Your task to perform on an android device: Open eBay Image 0: 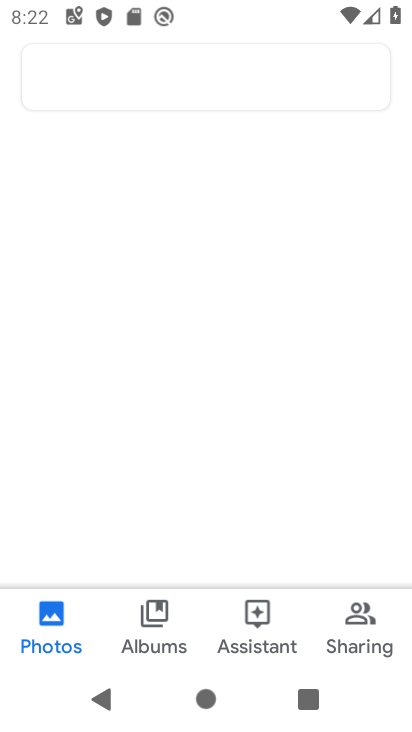
Step 0: press home button
Your task to perform on an android device: Open eBay Image 1: 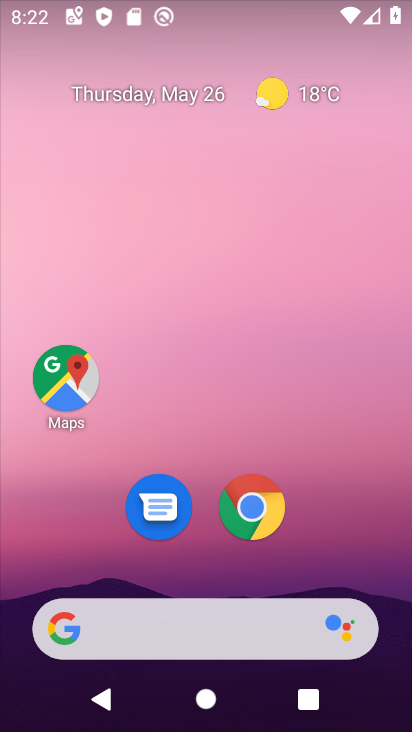
Step 1: drag from (265, 658) to (217, 84)
Your task to perform on an android device: Open eBay Image 2: 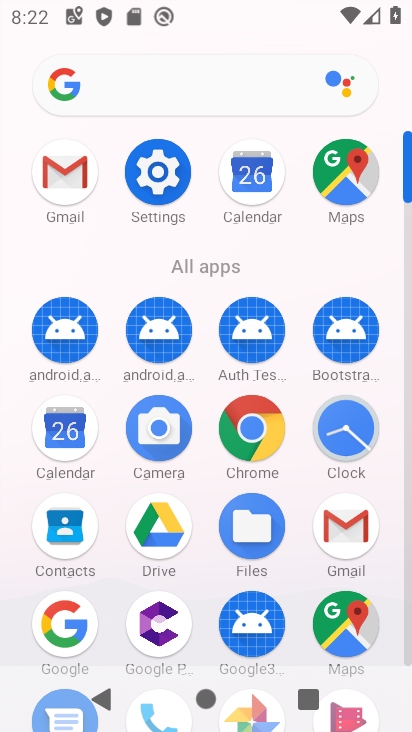
Step 2: click (265, 437)
Your task to perform on an android device: Open eBay Image 3: 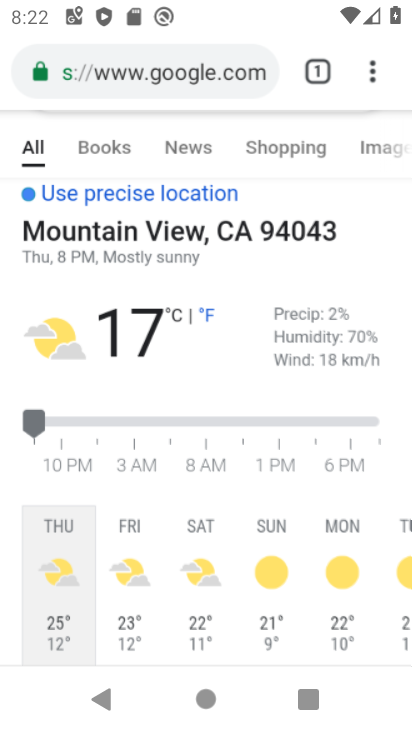
Step 3: click (216, 71)
Your task to perform on an android device: Open eBay Image 4: 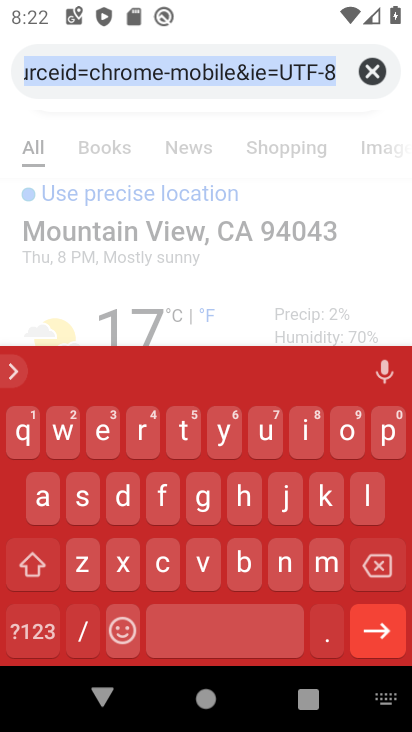
Step 4: click (99, 428)
Your task to perform on an android device: Open eBay Image 5: 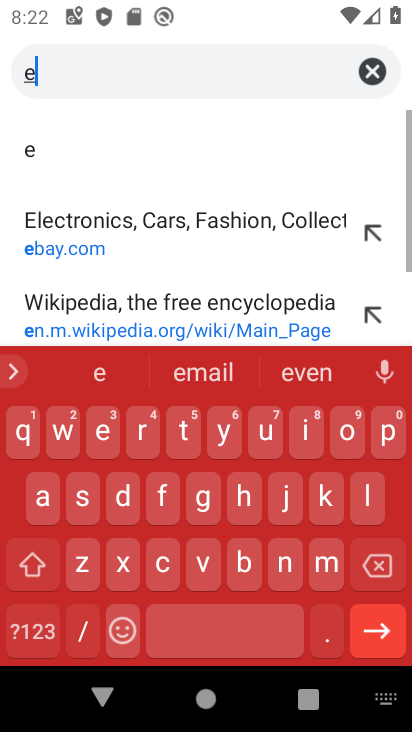
Step 5: click (248, 563)
Your task to perform on an android device: Open eBay Image 6: 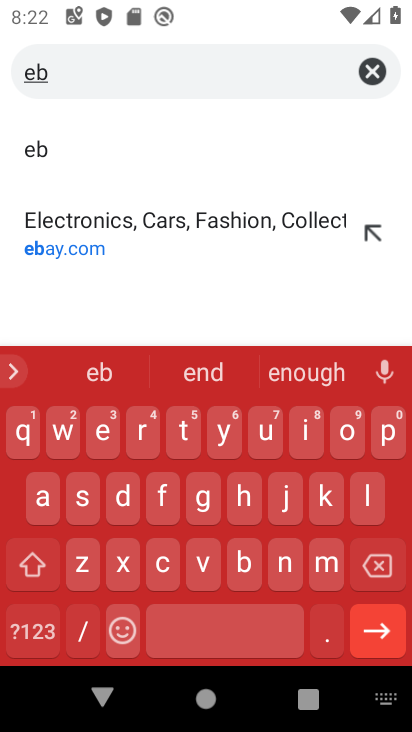
Step 6: click (44, 494)
Your task to perform on an android device: Open eBay Image 7: 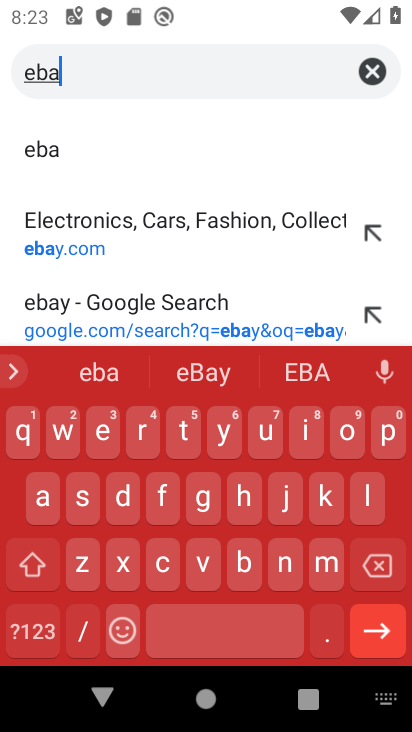
Step 7: click (221, 433)
Your task to perform on an android device: Open eBay Image 8: 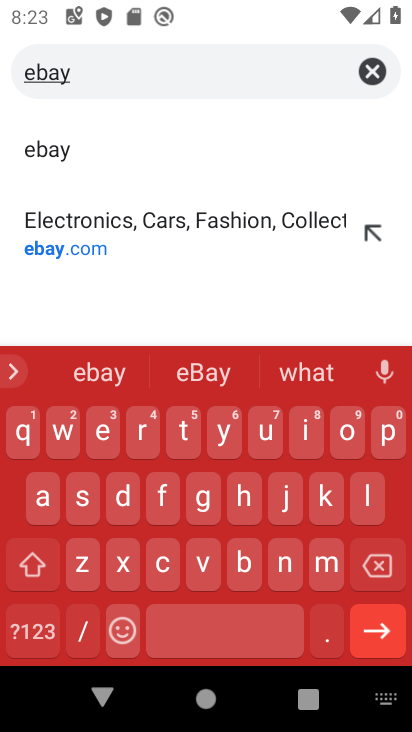
Step 8: click (387, 618)
Your task to perform on an android device: Open eBay Image 9: 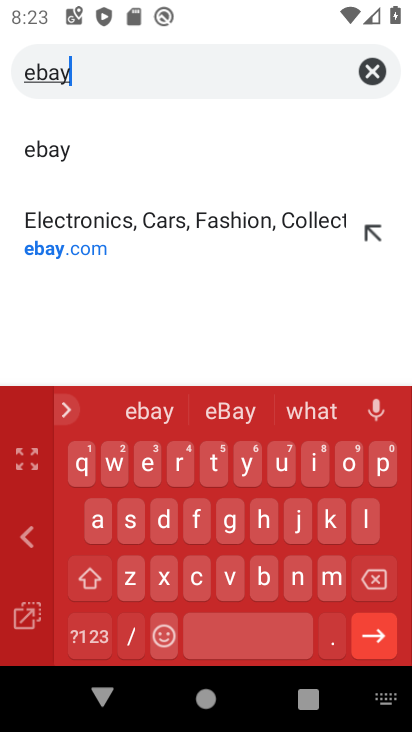
Step 9: click (119, 156)
Your task to perform on an android device: Open eBay Image 10: 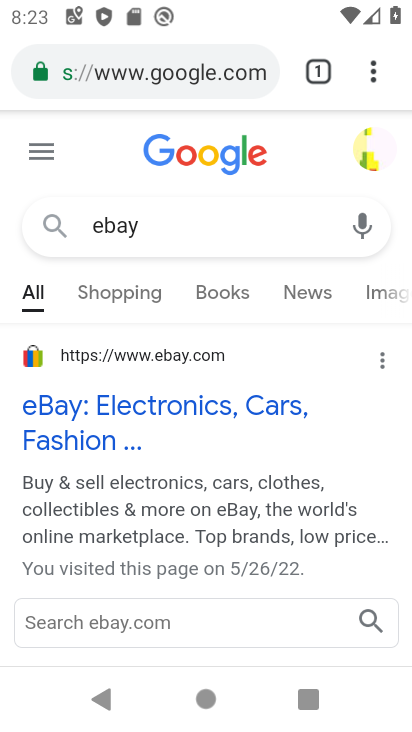
Step 10: click (109, 423)
Your task to perform on an android device: Open eBay Image 11: 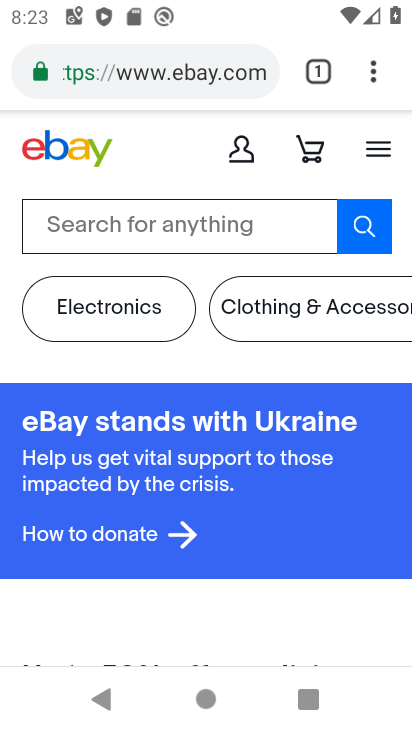
Step 11: task complete